Your task to perform on an android device: Open location settings Image 0: 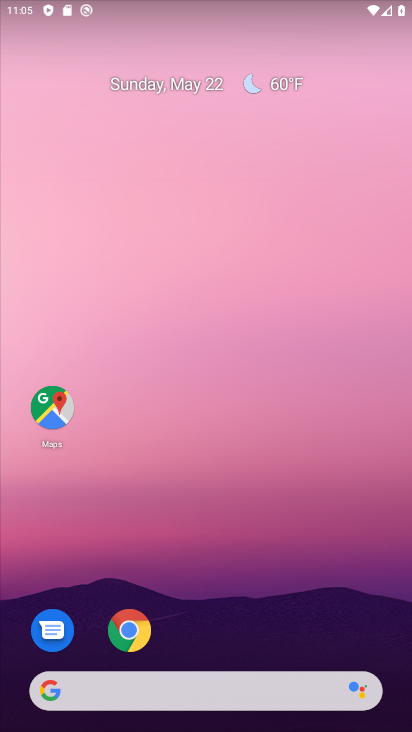
Step 0: drag from (198, 554) to (169, 173)
Your task to perform on an android device: Open location settings Image 1: 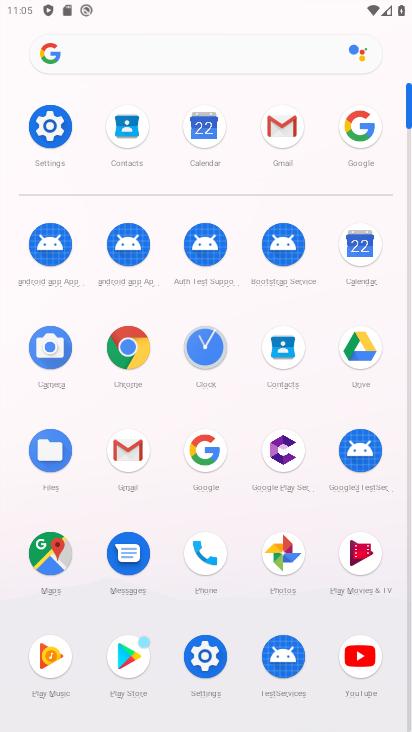
Step 1: click (205, 654)
Your task to perform on an android device: Open location settings Image 2: 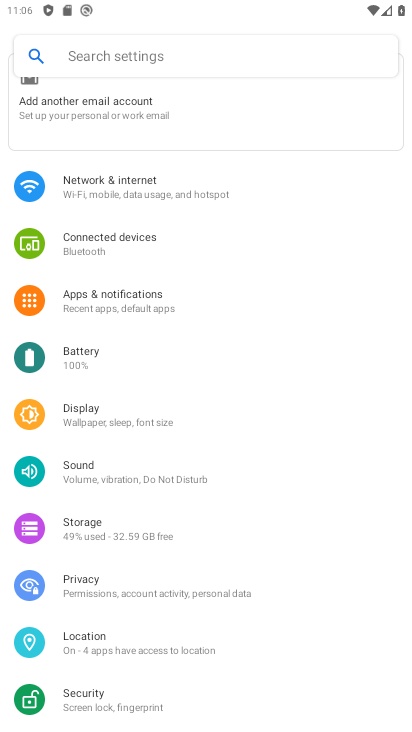
Step 2: click (126, 650)
Your task to perform on an android device: Open location settings Image 3: 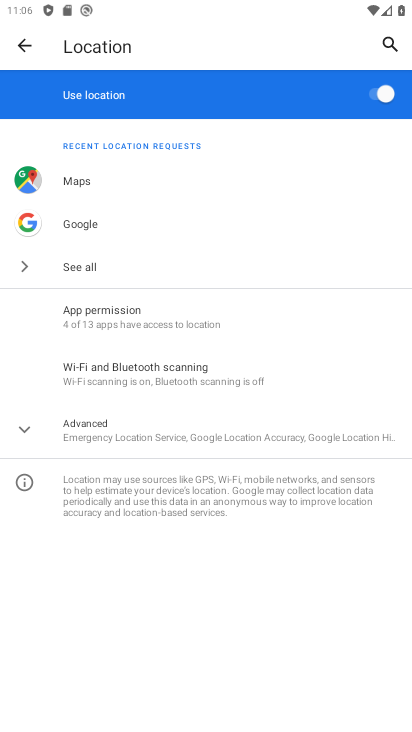
Step 3: task complete